Your task to perform on an android device: Open Chrome and go to settings Image 0: 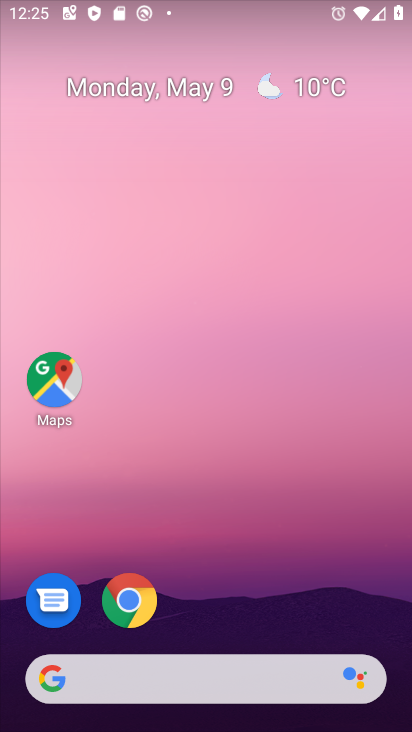
Step 0: click (133, 602)
Your task to perform on an android device: Open Chrome and go to settings Image 1: 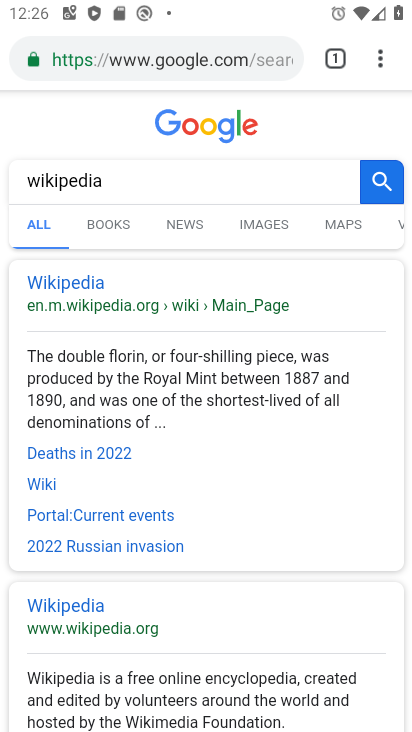
Step 1: click (380, 58)
Your task to perform on an android device: Open Chrome and go to settings Image 2: 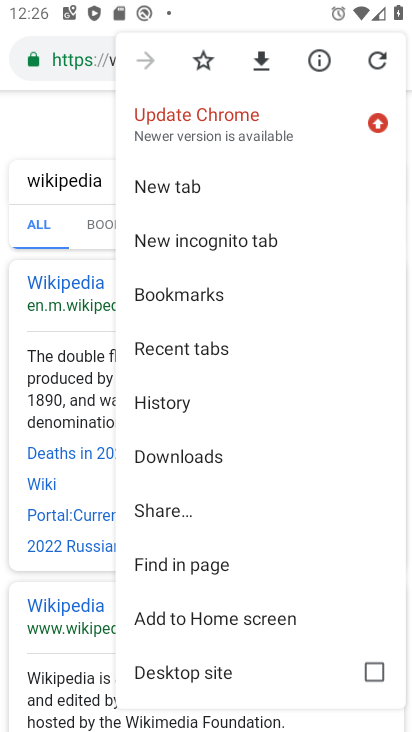
Step 2: drag from (167, 589) to (270, 211)
Your task to perform on an android device: Open Chrome and go to settings Image 3: 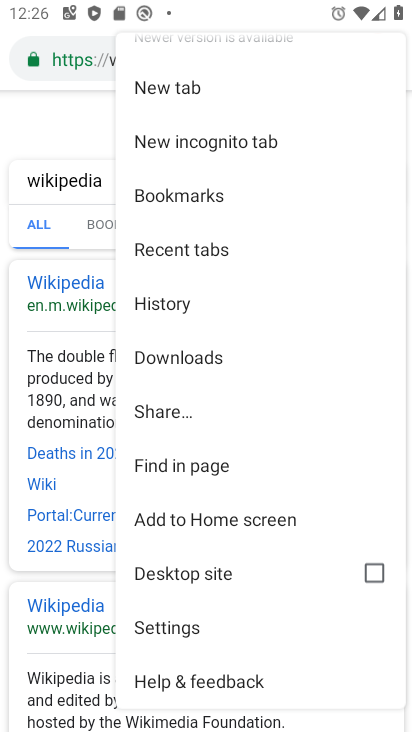
Step 3: click (177, 630)
Your task to perform on an android device: Open Chrome and go to settings Image 4: 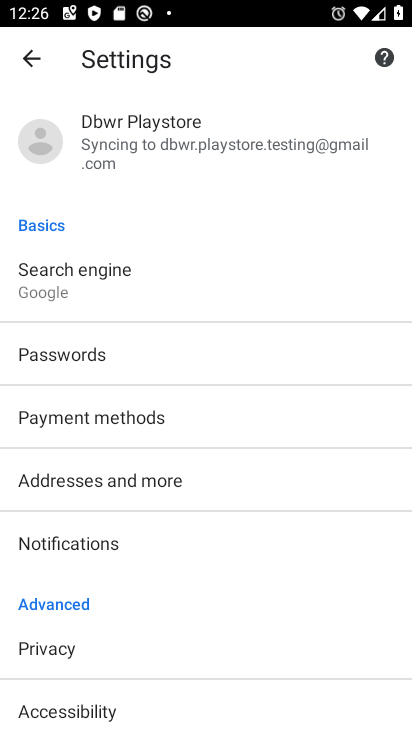
Step 4: task complete